Your task to perform on an android device: turn pop-ups on in chrome Image 0: 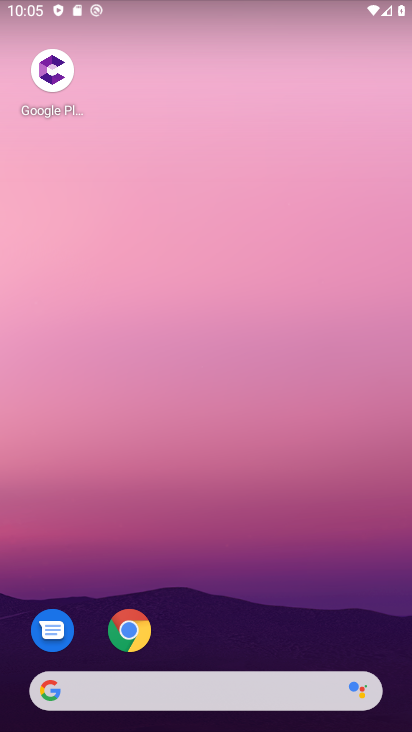
Step 0: drag from (327, 617) to (345, 12)
Your task to perform on an android device: turn pop-ups on in chrome Image 1: 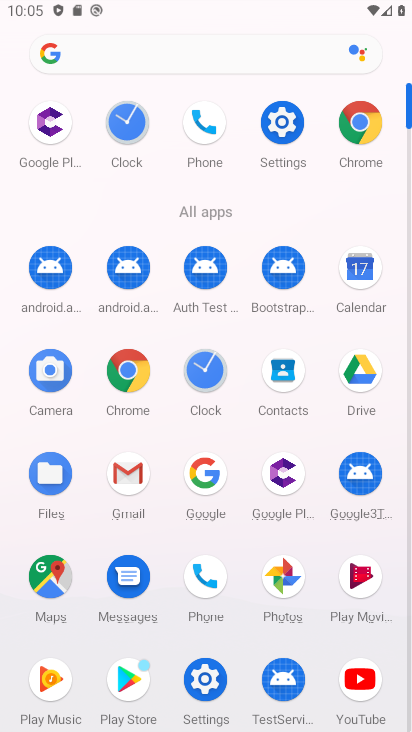
Step 1: click (366, 135)
Your task to perform on an android device: turn pop-ups on in chrome Image 2: 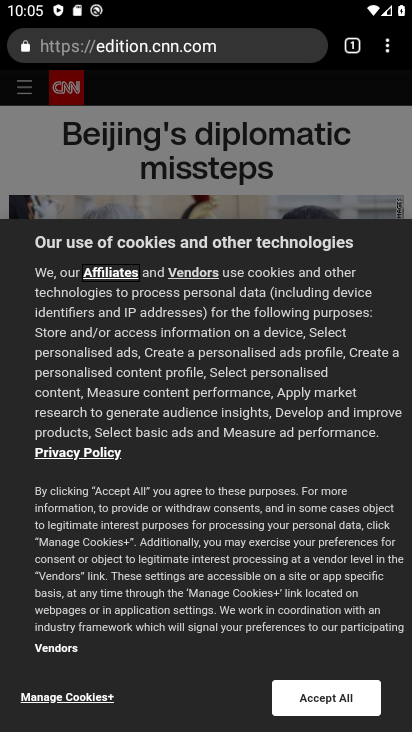
Step 2: click (388, 47)
Your task to perform on an android device: turn pop-ups on in chrome Image 3: 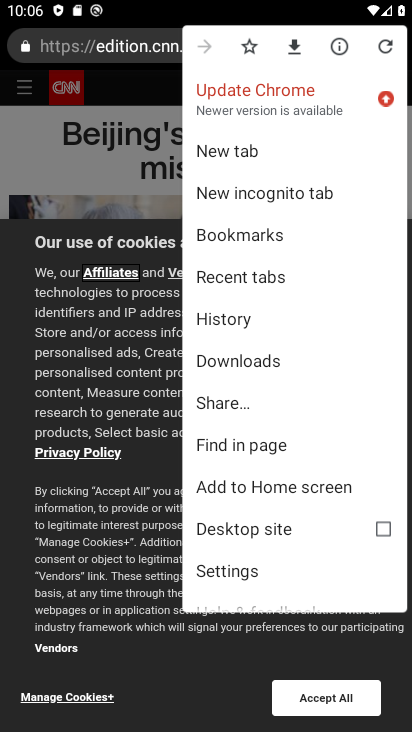
Step 3: drag from (359, 456) to (359, 263)
Your task to perform on an android device: turn pop-ups on in chrome Image 4: 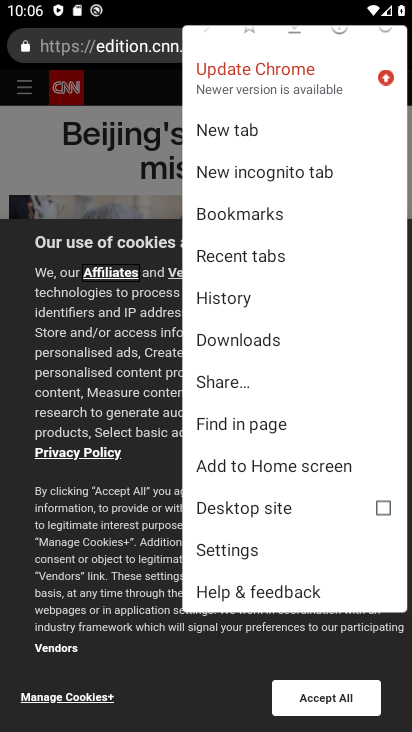
Step 4: click (247, 556)
Your task to perform on an android device: turn pop-ups on in chrome Image 5: 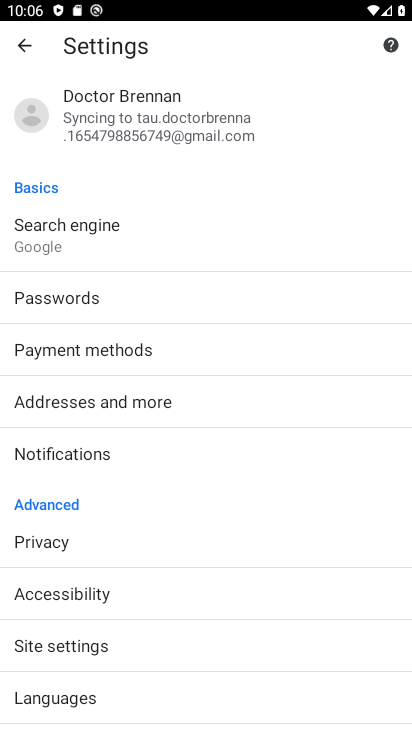
Step 5: drag from (280, 553) to (298, 420)
Your task to perform on an android device: turn pop-ups on in chrome Image 6: 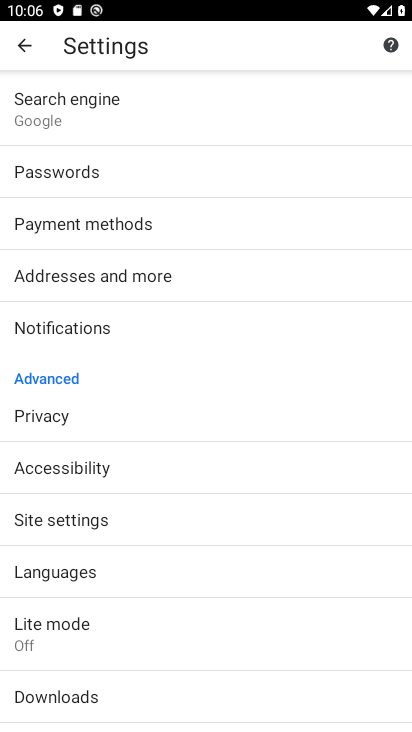
Step 6: drag from (321, 524) to (336, 196)
Your task to perform on an android device: turn pop-ups on in chrome Image 7: 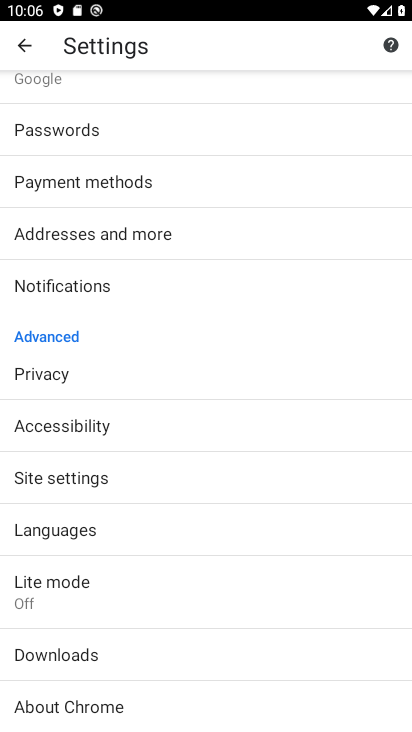
Step 7: drag from (350, 448) to (361, 267)
Your task to perform on an android device: turn pop-ups on in chrome Image 8: 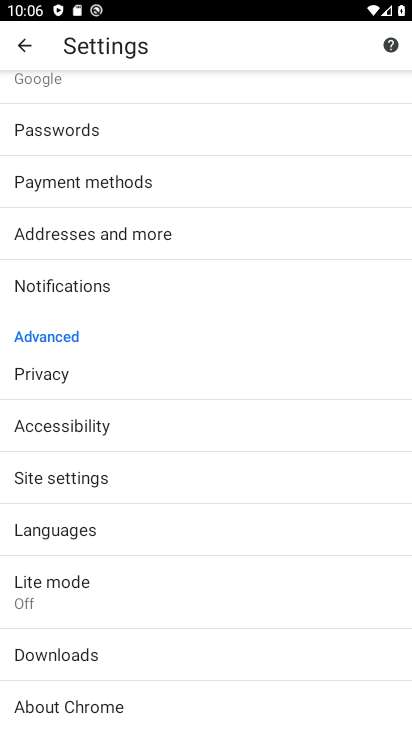
Step 8: click (245, 481)
Your task to perform on an android device: turn pop-ups on in chrome Image 9: 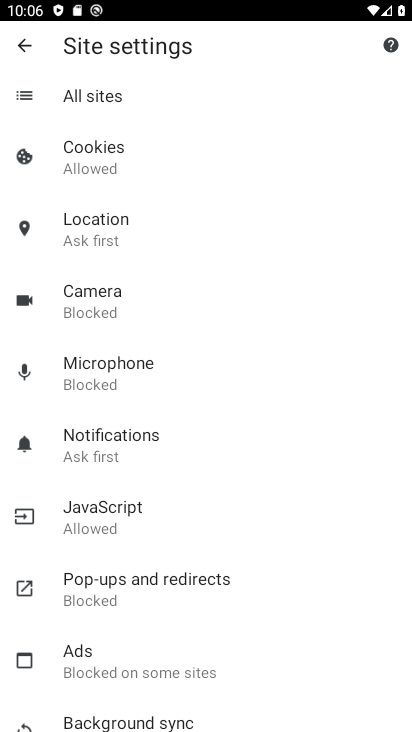
Step 9: drag from (332, 495) to (333, 291)
Your task to perform on an android device: turn pop-ups on in chrome Image 10: 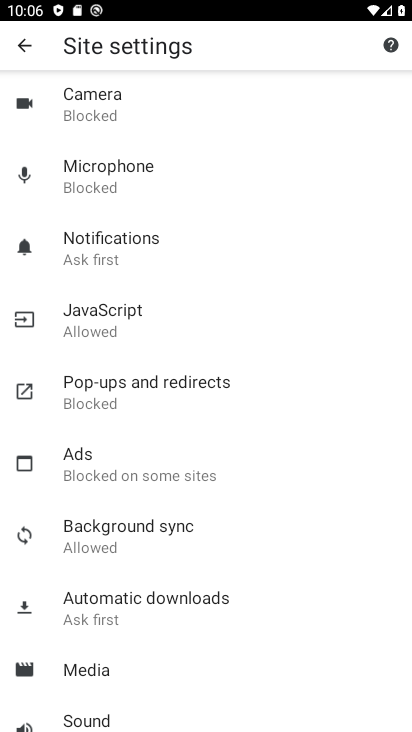
Step 10: drag from (321, 478) to (326, 386)
Your task to perform on an android device: turn pop-ups on in chrome Image 11: 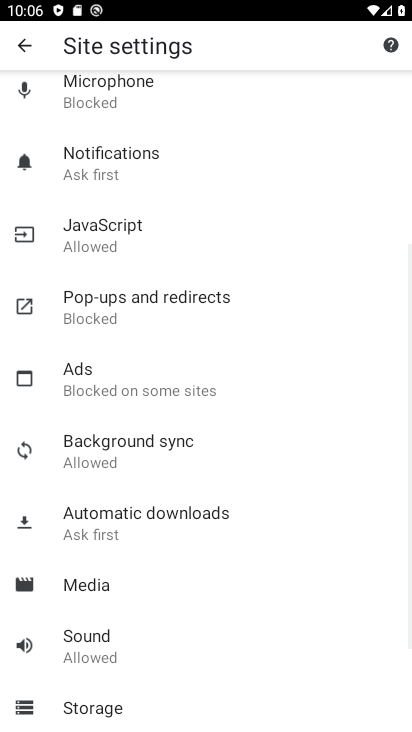
Step 11: drag from (328, 515) to (338, 376)
Your task to perform on an android device: turn pop-ups on in chrome Image 12: 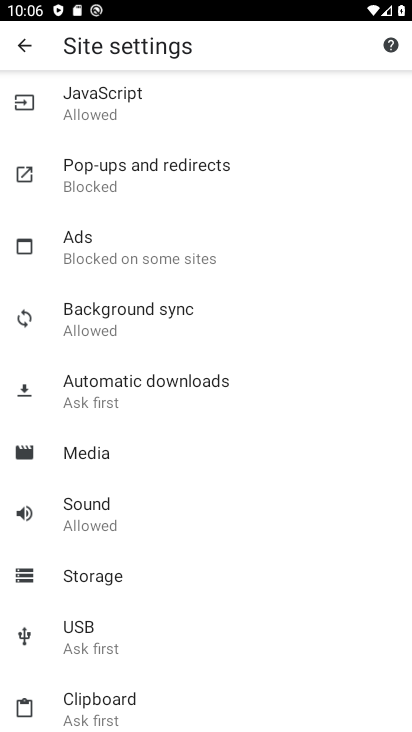
Step 12: drag from (336, 181) to (327, 331)
Your task to perform on an android device: turn pop-ups on in chrome Image 13: 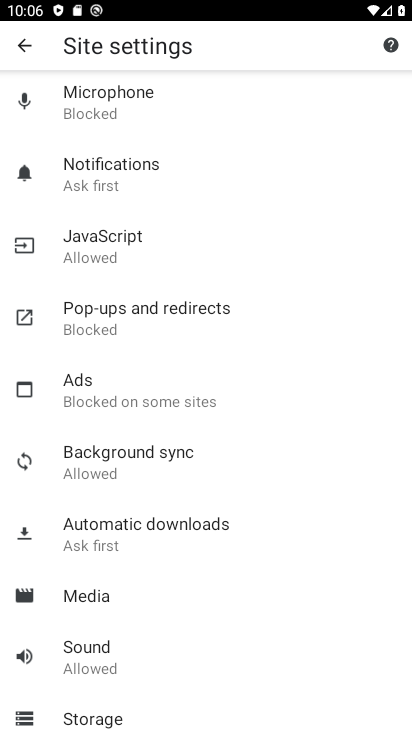
Step 13: drag from (332, 215) to (329, 368)
Your task to perform on an android device: turn pop-ups on in chrome Image 14: 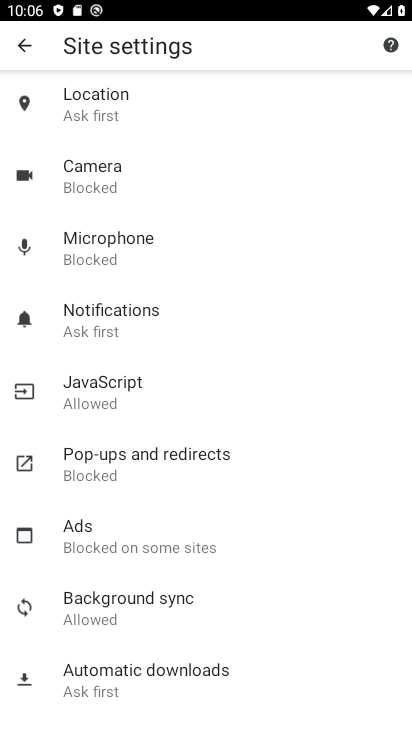
Step 14: drag from (318, 204) to (323, 318)
Your task to perform on an android device: turn pop-ups on in chrome Image 15: 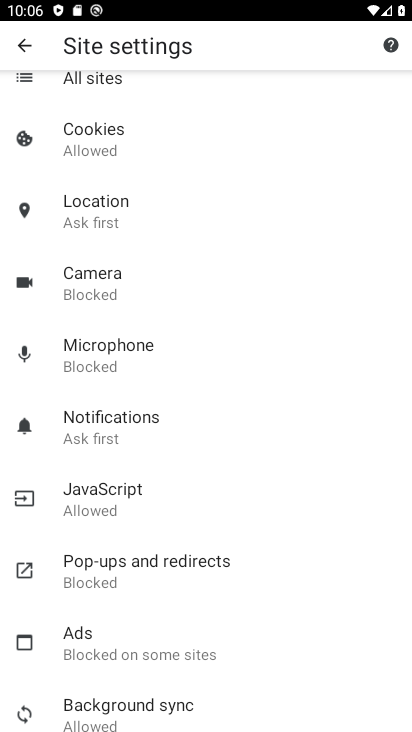
Step 15: click (256, 575)
Your task to perform on an android device: turn pop-ups on in chrome Image 16: 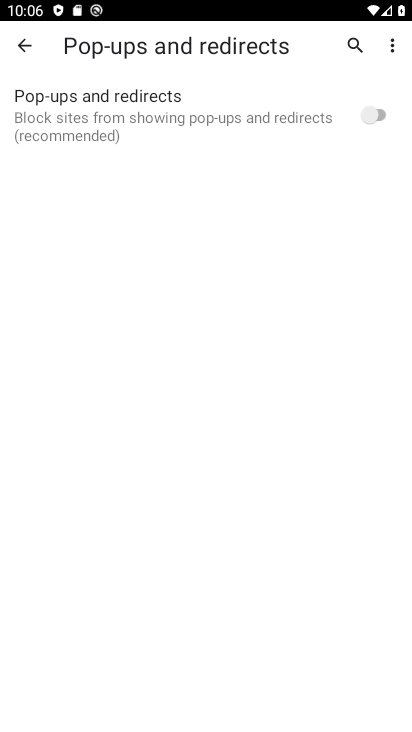
Step 16: click (366, 114)
Your task to perform on an android device: turn pop-ups on in chrome Image 17: 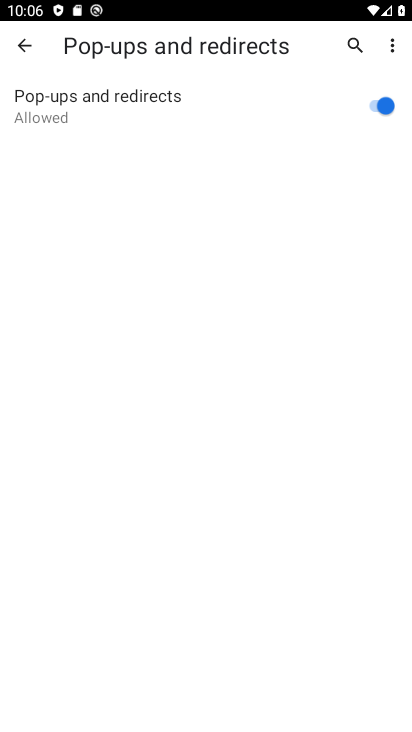
Step 17: task complete